Your task to perform on an android device: Open Google Maps and go to "Timeline" Image 0: 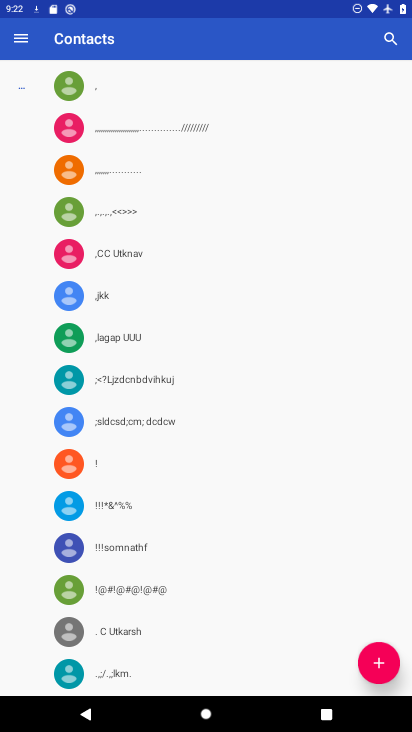
Step 0: press home button
Your task to perform on an android device: Open Google Maps and go to "Timeline" Image 1: 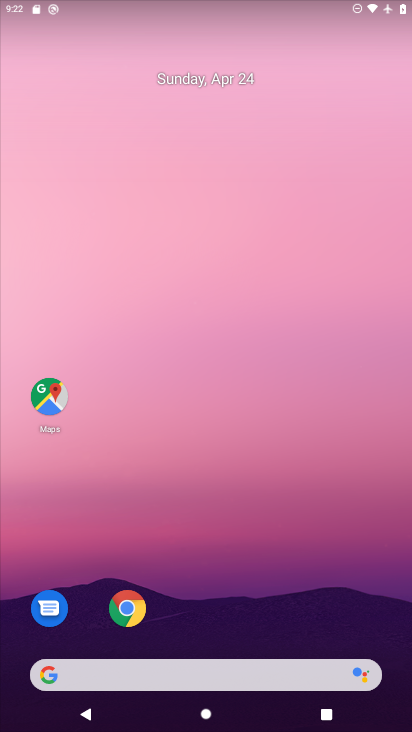
Step 1: click (64, 393)
Your task to perform on an android device: Open Google Maps and go to "Timeline" Image 2: 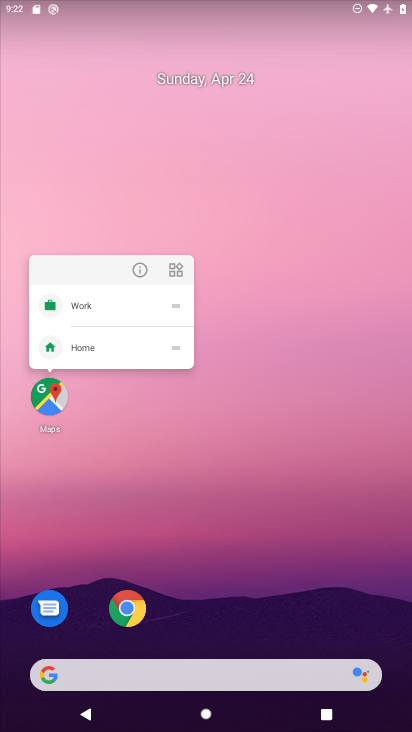
Step 2: click (51, 408)
Your task to perform on an android device: Open Google Maps and go to "Timeline" Image 3: 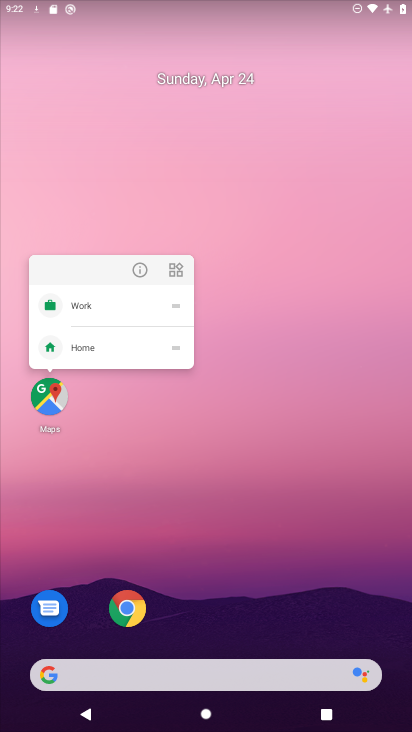
Step 3: click (49, 406)
Your task to perform on an android device: Open Google Maps and go to "Timeline" Image 4: 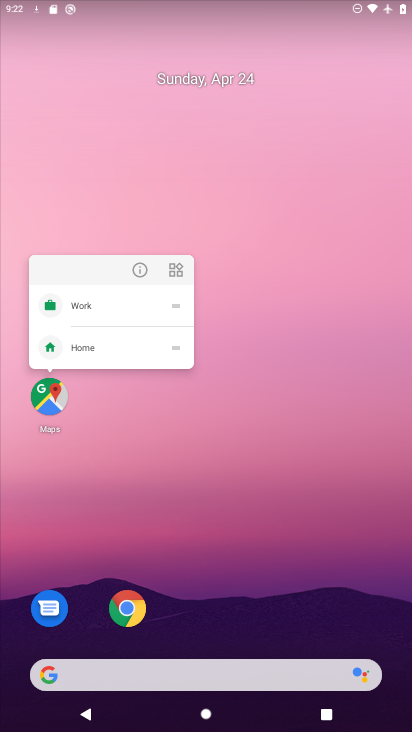
Step 4: click (49, 406)
Your task to perform on an android device: Open Google Maps and go to "Timeline" Image 5: 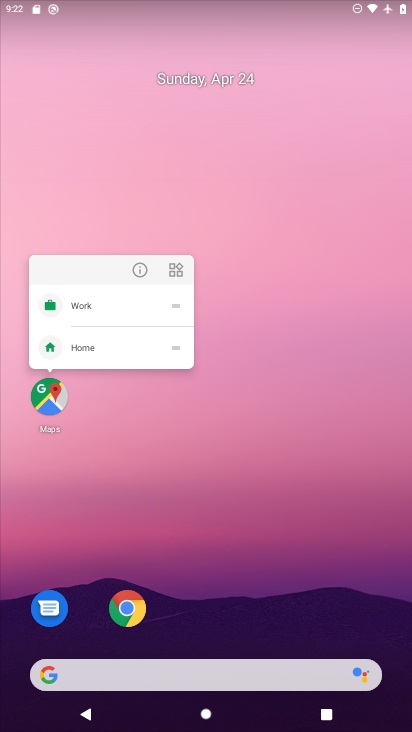
Step 5: click (49, 406)
Your task to perform on an android device: Open Google Maps and go to "Timeline" Image 6: 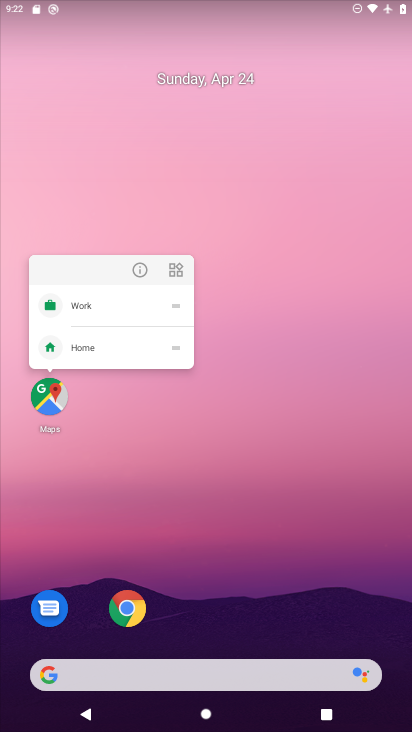
Step 6: click (49, 406)
Your task to perform on an android device: Open Google Maps and go to "Timeline" Image 7: 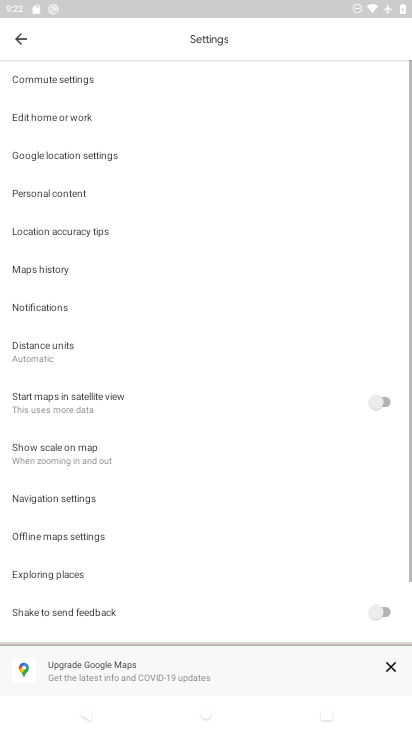
Step 7: click (28, 39)
Your task to perform on an android device: Open Google Maps and go to "Timeline" Image 8: 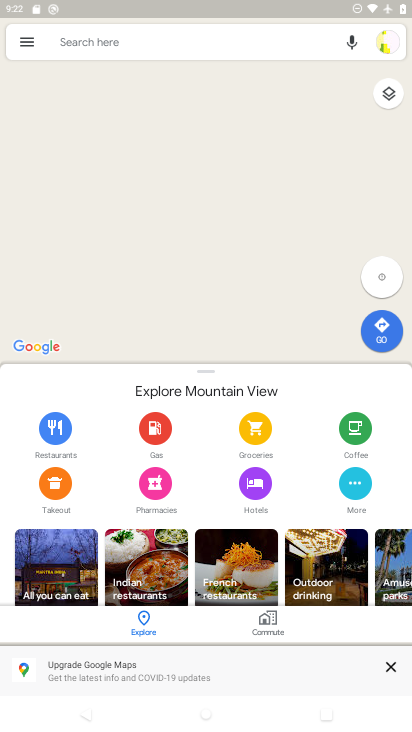
Step 8: click (28, 39)
Your task to perform on an android device: Open Google Maps and go to "Timeline" Image 9: 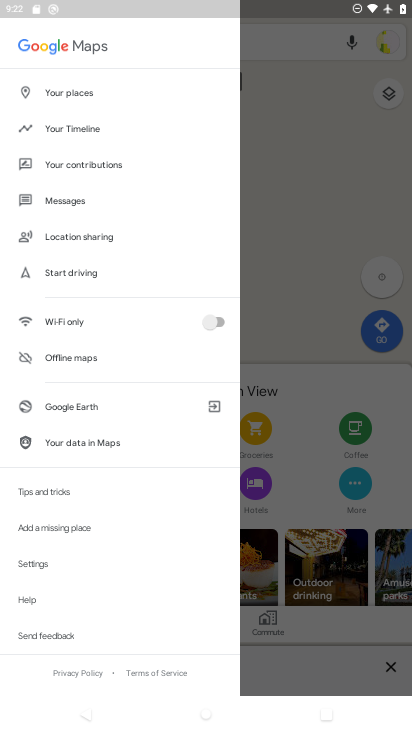
Step 9: click (81, 132)
Your task to perform on an android device: Open Google Maps and go to "Timeline" Image 10: 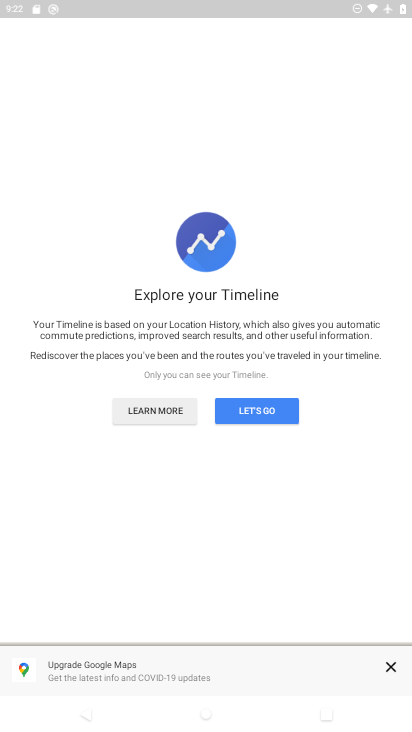
Step 10: click (258, 414)
Your task to perform on an android device: Open Google Maps and go to "Timeline" Image 11: 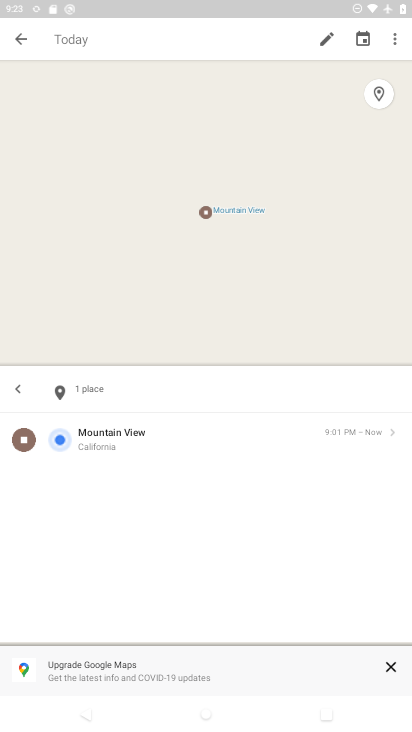
Step 11: task complete